Your task to perform on an android device: turn on wifi Image 0: 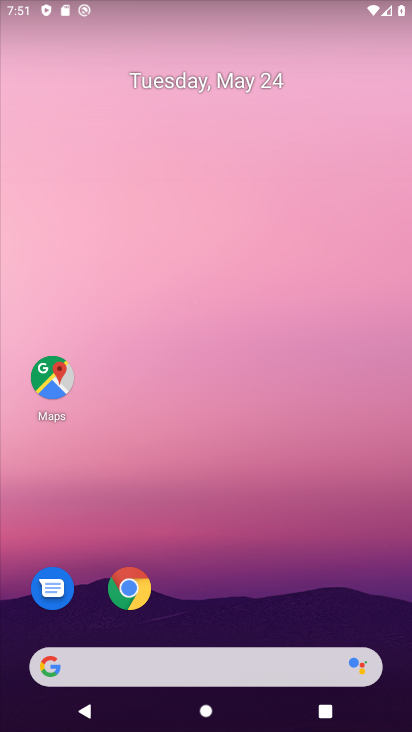
Step 0: drag from (256, 648) to (211, 43)
Your task to perform on an android device: turn on wifi Image 1: 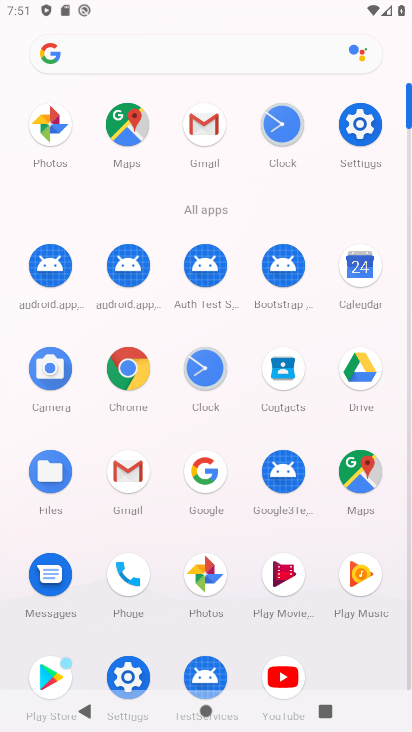
Step 1: click (374, 121)
Your task to perform on an android device: turn on wifi Image 2: 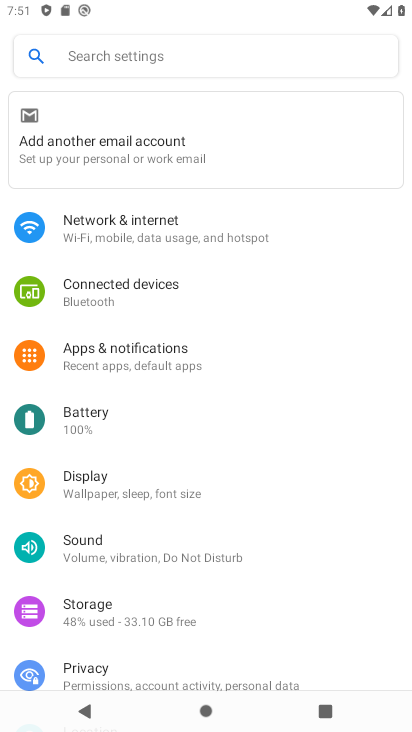
Step 2: click (252, 230)
Your task to perform on an android device: turn on wifi Image 3: 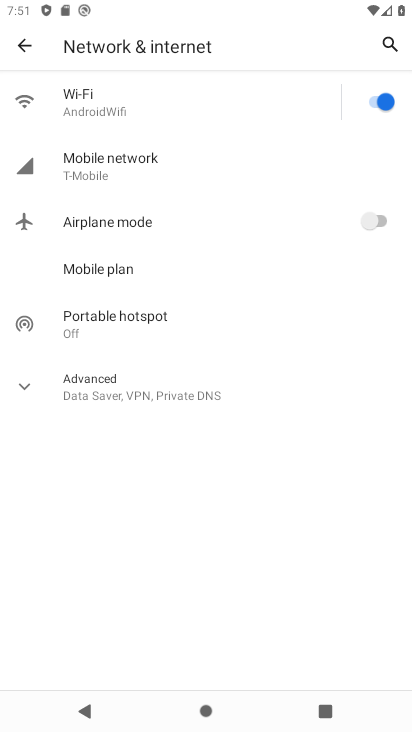
Step 3: task complete